Your task to perform on an android device: toggle sleep mode Image 0: 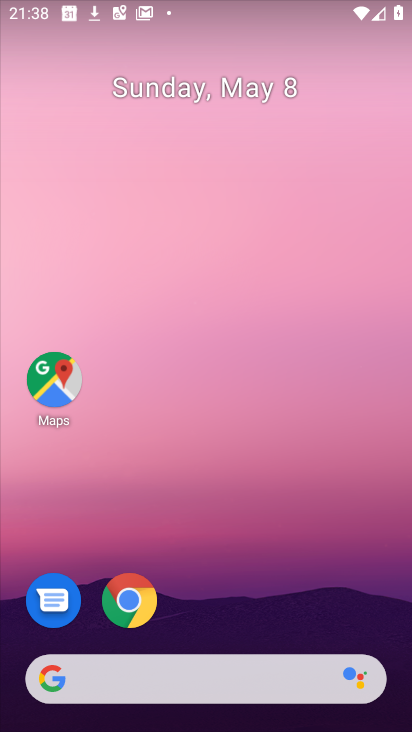
Step 0: drag from (269, 684) to (246, 284)
Your task to perform on an android device: toggle sleep mode Image 1: 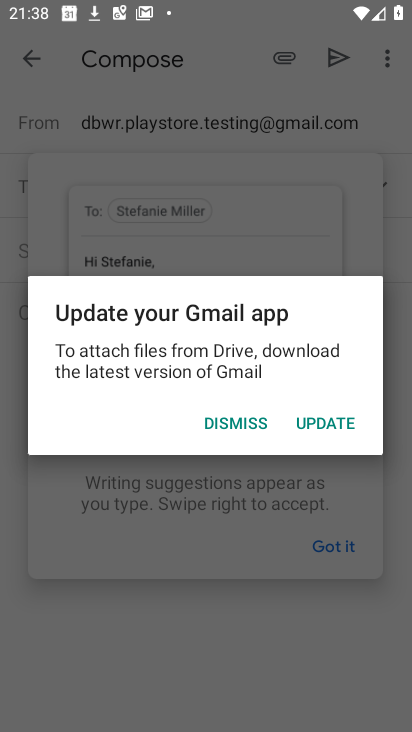
Step 1: press home button
Your task to perform on an android device: toggle sleep mode Image 2: 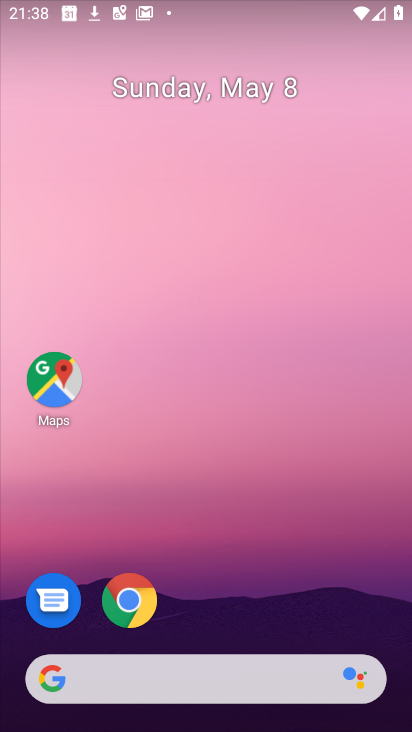
Step 2: drag from (261, 719) to (349, 241)
Your task to perform on an android device: toggle sleep mode Image 3: 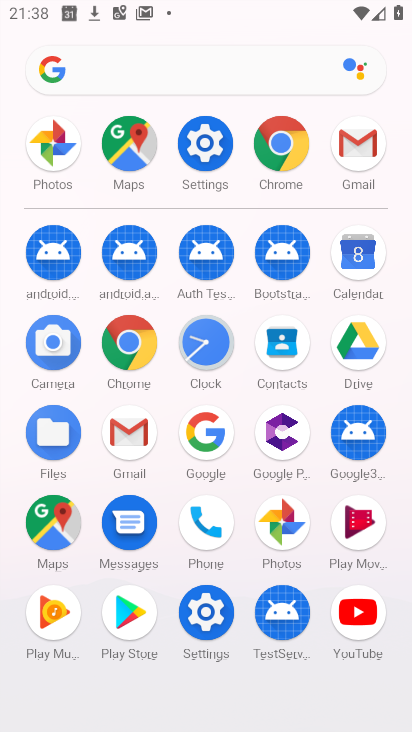
Step 3: click (201, 155)
Your task to perform on an android device: toggle sleep mode Image 4: 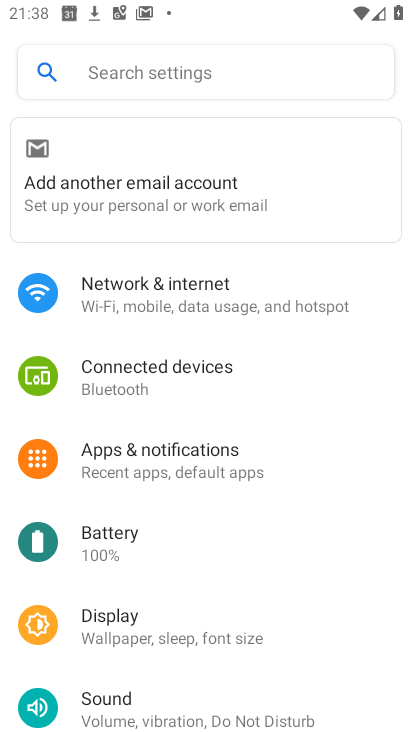
Step 4: click (178, 79)
Your task to perform on an android device: toggle sleep mode Image 5: 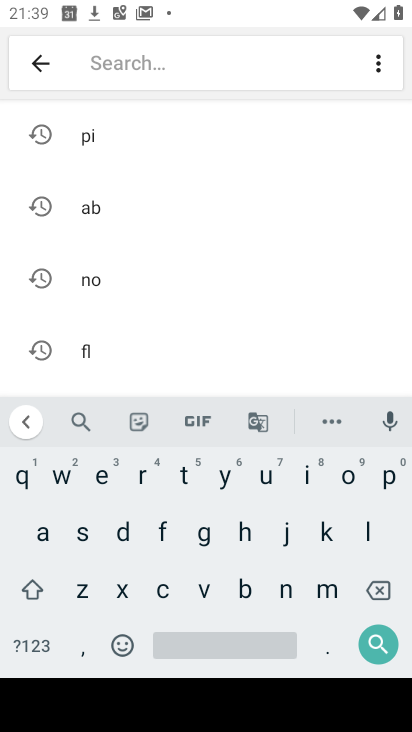
Step 5: click (81, 537)
Your task to perform on an android device: toggle sleep mode Image 6: 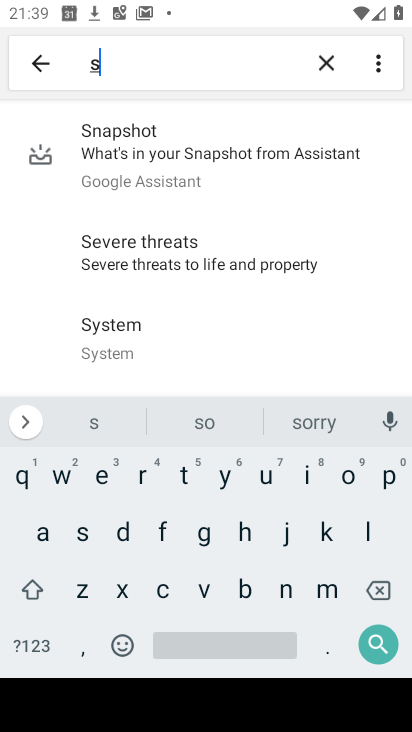
Step 6: click (365, 528)
Your task to perform on an android device: toggle sleep mode Image 7: 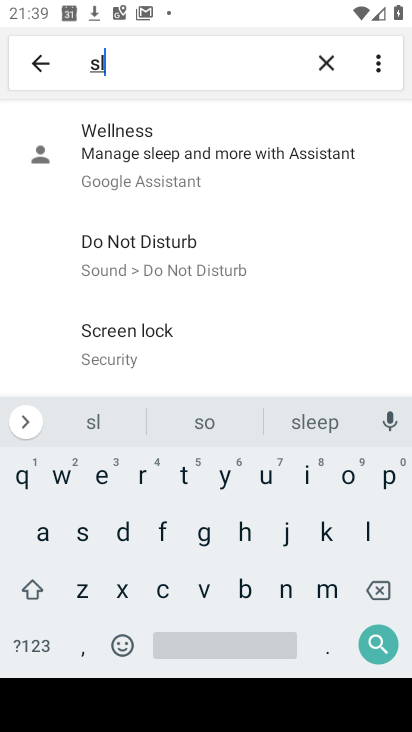
Step 7: click (97, 481)
Your task to perform on an android device: toggle sleep mode Image 8: 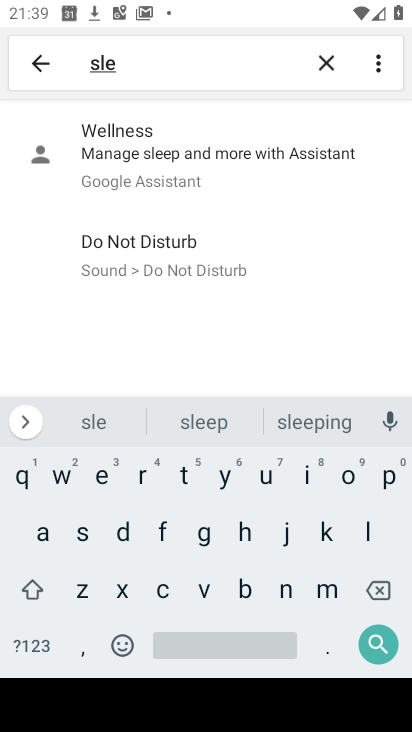
Step 8: click (146, 161)
Your task to perform on an android device: toggle sleep mode Image 9: 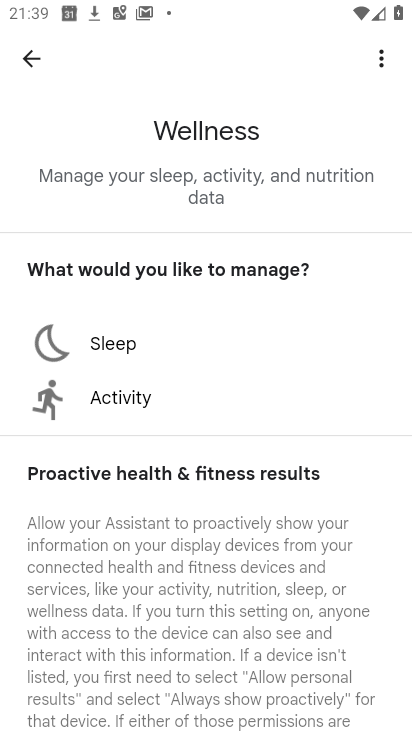
Step 9: click (144, 336)
Your task to perform on an android device: toggle sleep mode Image 10: 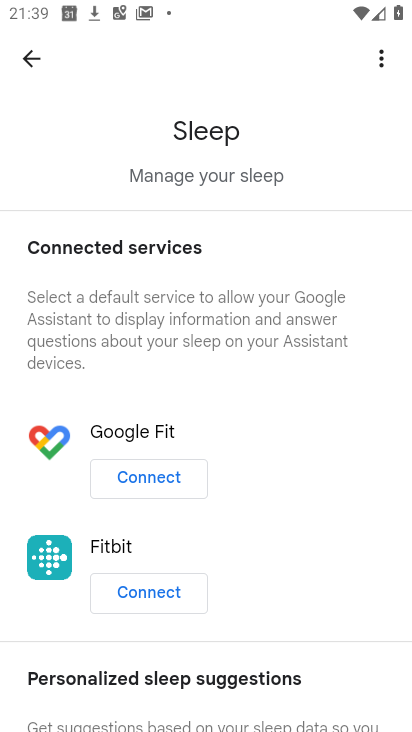
Step 10: task complete